Your task to perform on an android device: toggle javascript in the chrome app Image 0: 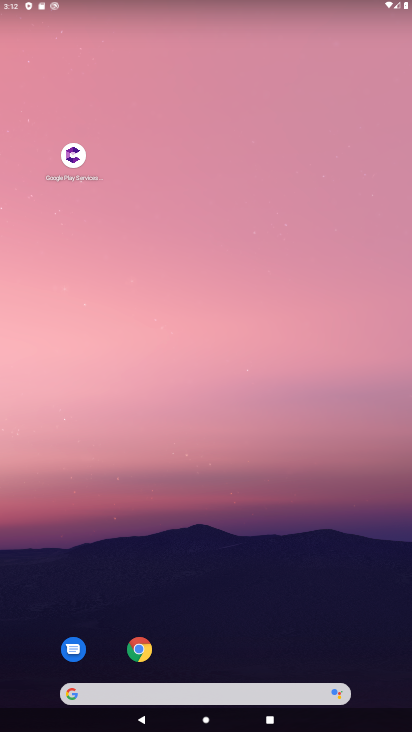
Step 0: click (141, 651)
Your task to perform on an android device: toggle javascript in the chrome app Image 1: 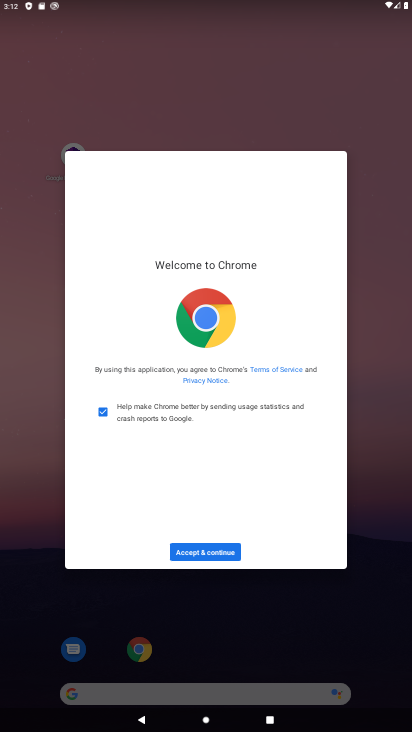
Step 1: click (210, 551)
Your task to perform on an android device: toggle javascript in the chrome app Image 2: 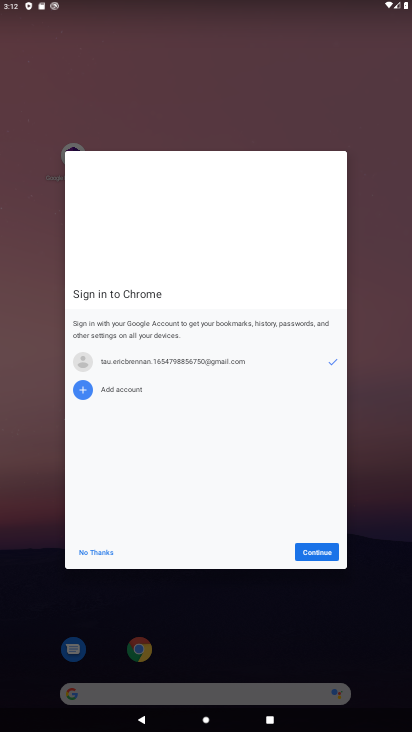
Step 2: click (319, 553)
Your task to perform on an android device: toggle javascript in the chrome app Image 3: 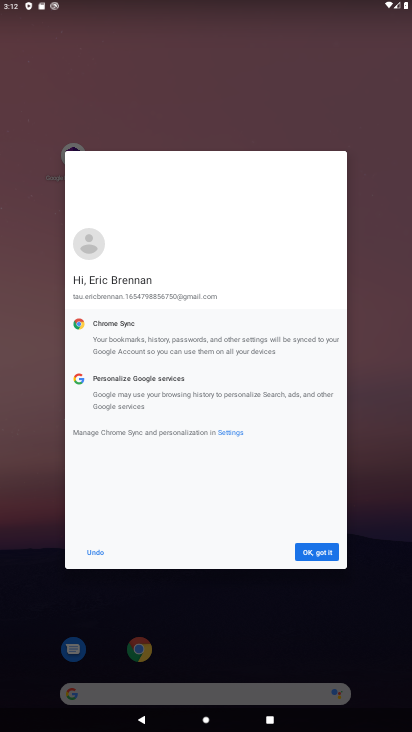
Step 3: click (319, 553)
Your task to perform on an android device: toggle javascript in the chrome app Image 4: 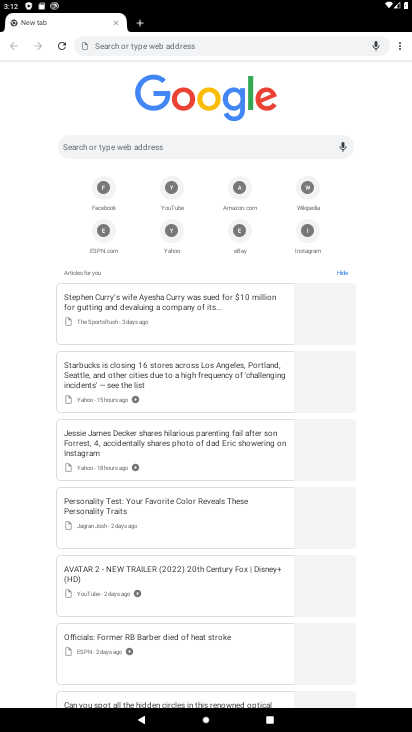
Step 4: click (399, 42)
Your task to perform on an android device: toggle javascript in the chrome app Image 5: 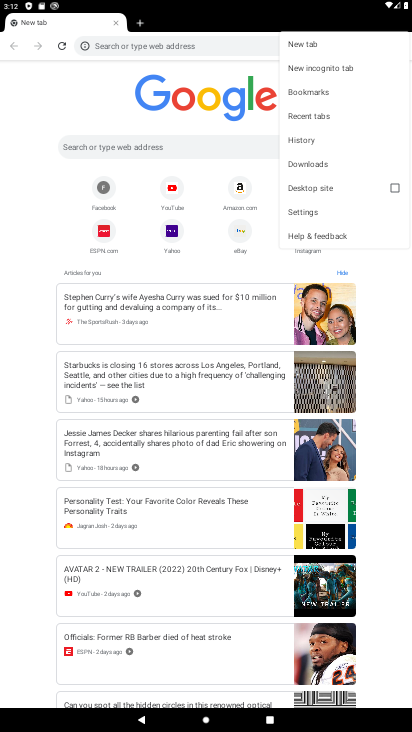
Step 5: click (293, 210)
Your task to perform on an android device: toggle javascript in the chrome app Image 6: 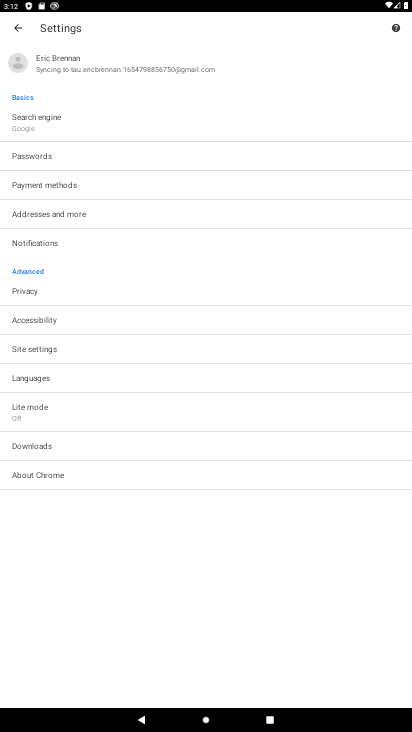
Step 6: click (20, 353)
Your task to perform on an android device: toggle javascript in the chrome app Image 7: 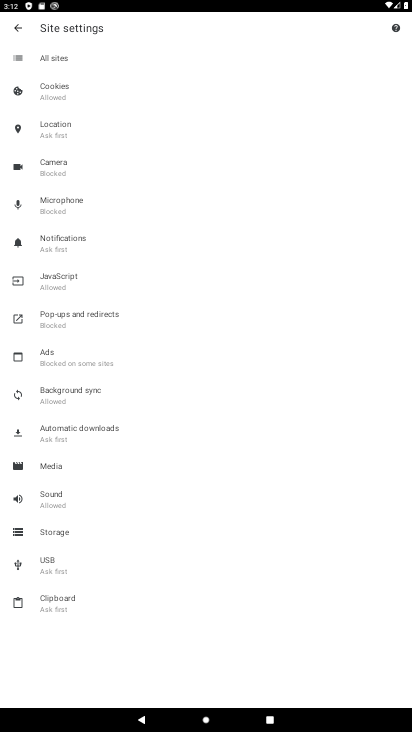
Step 7: click (65, 284)
Your task to perform on an android device: toggle javascript in the chrome app Image 8: 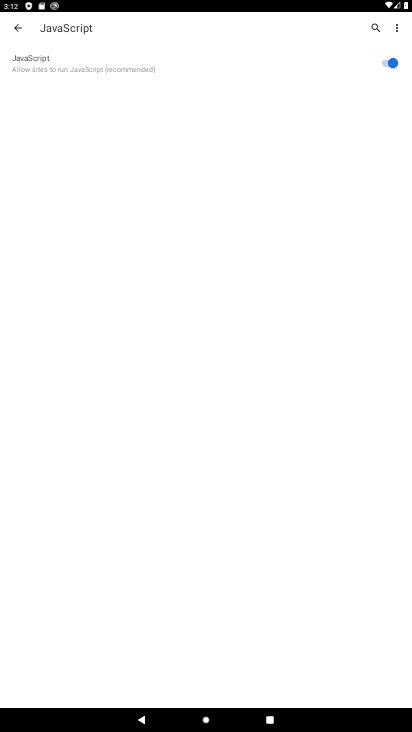
Step 8: click (389, 60)
Your task to perform on an android device: toggle javascript in the chrome app Image 9: 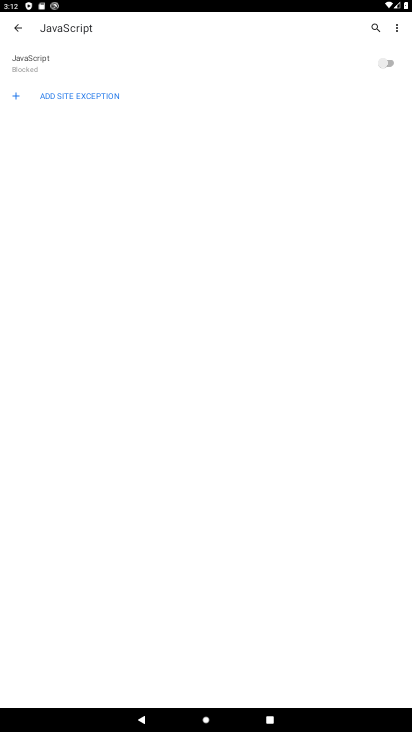
Step 9: task complete